Your task to perform on an android device: open a new tab in the chrome app Image 0: 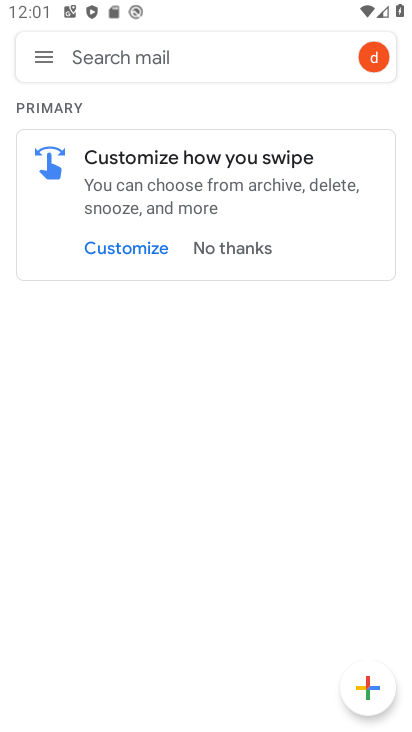
Step 0: press home button
Your task to perform on an android device: open a new tab in the chrome app Image 1: 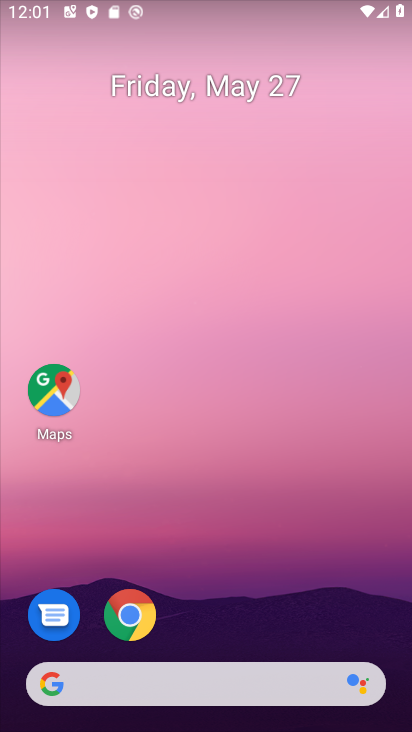
Step 1: drag from (287, 502) to (410, 403)
Your task to perform on an android device: open a new tab in the chrome app Image 2: 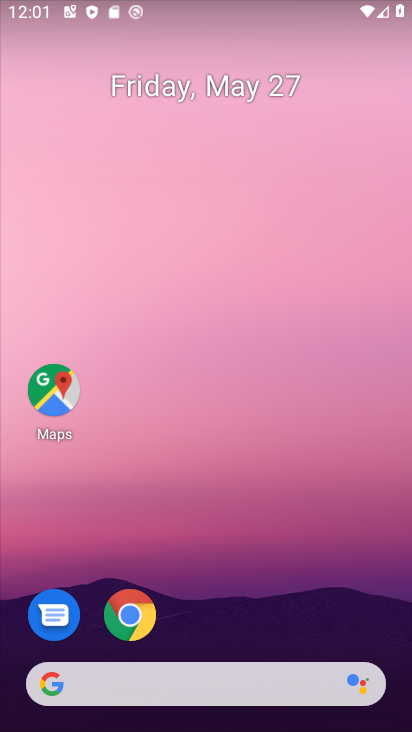
Step 2: drag from (203, 568) to (166, 4)
Your task to perform on an android device: open a new tab in the chrome app Image 3: 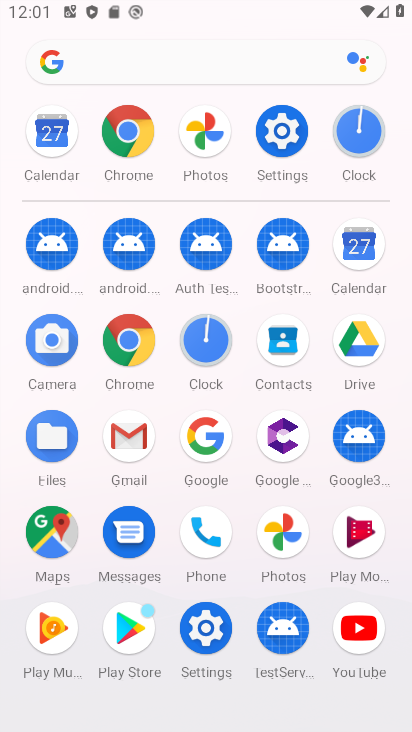
Step 3: click (136, 351)
Your task to perform on an android device: open a new tab in the chrome app Image 4: 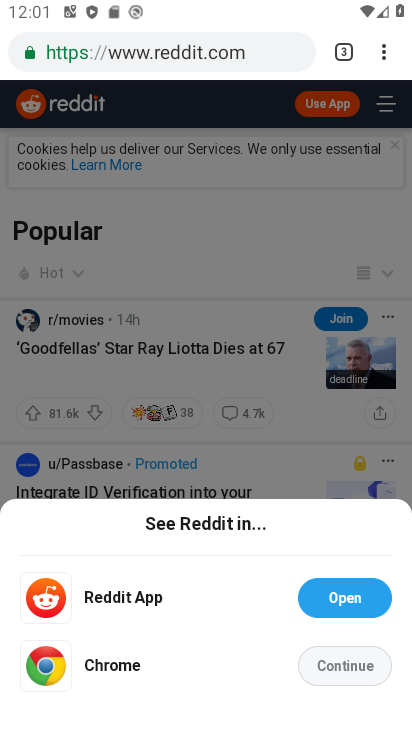
Step 4: task complete